Your task to perform on an android device: What is the speed of a rocket? Image 0: 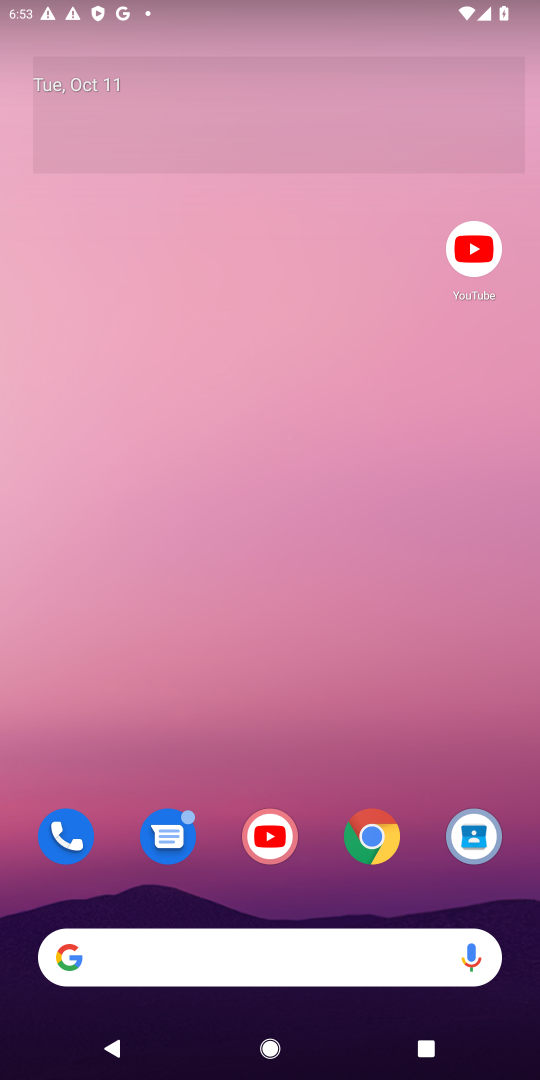
Step 0: click (371, 840)
Your task to perform on an android device: What is the speed of a rocket? Image 1: 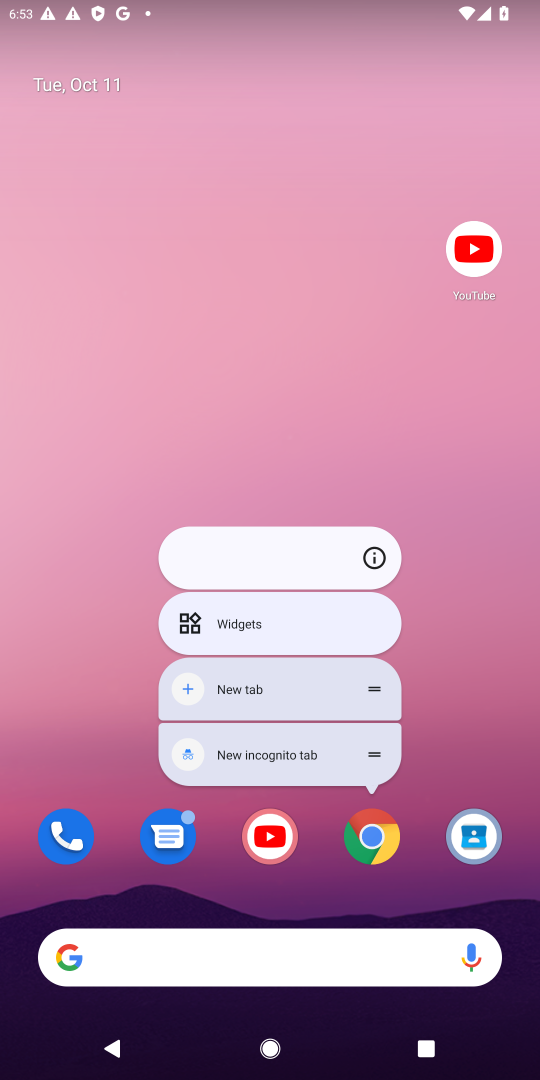
Step 1: click (370, 842)
Your task to perform on an android device: What is the speed of a rocket? Image 2: 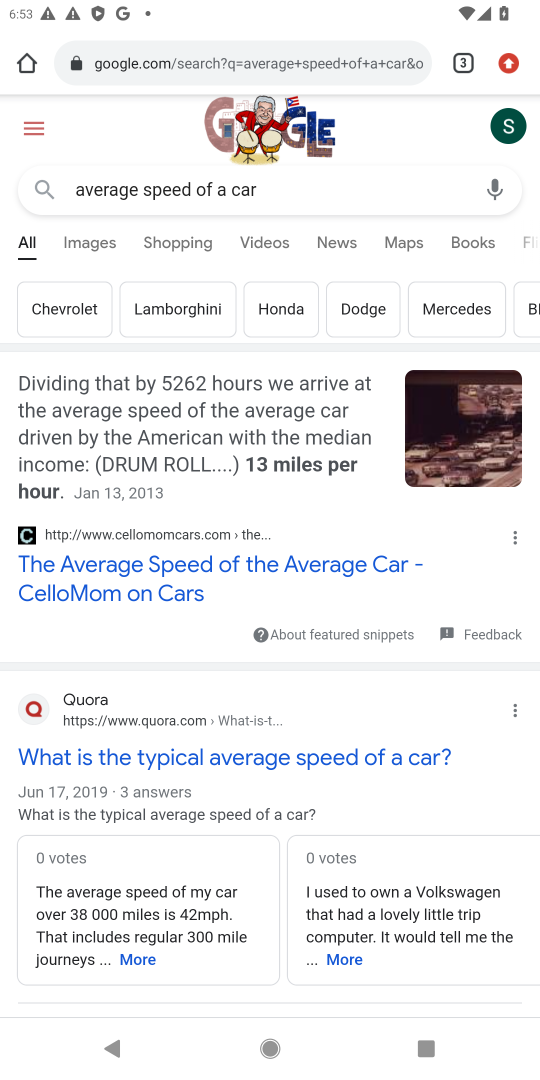
Step 2: click (363, 61)
Your task to perform on an android device: What is the speed of a rocket? Image 3: 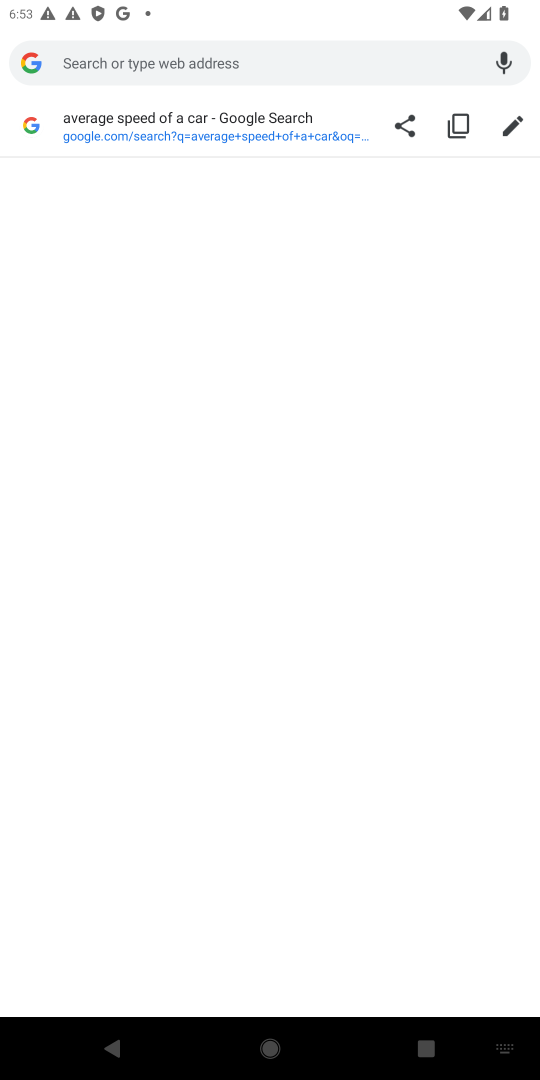
Step 3: type "speed of a rocket"
Your task to perform on an android device: What is the speed of a rocket? Image 4: 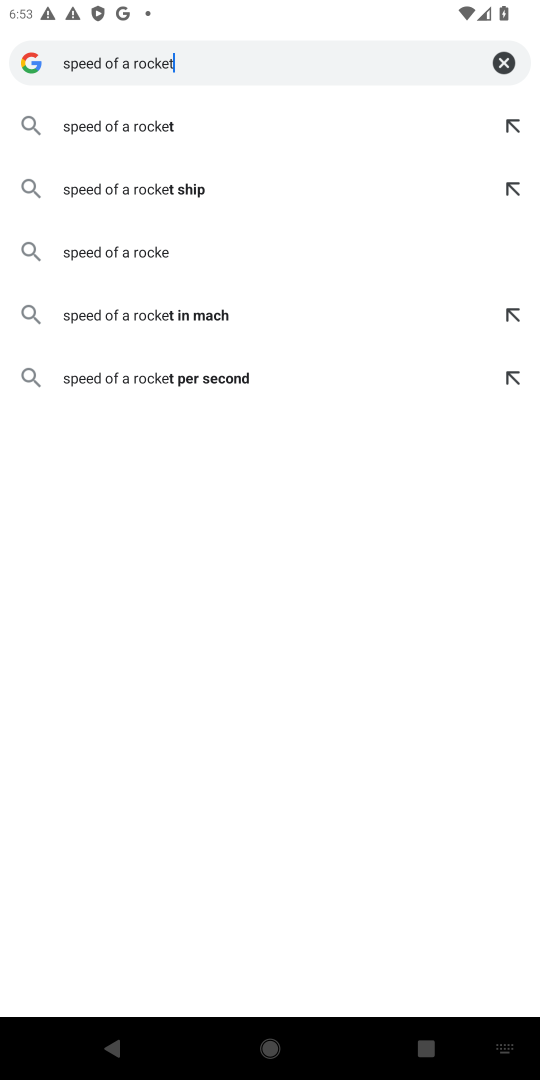
Step 4: press enter
Your task to perform on an android device: What is the speed of a rocket? Image 5: 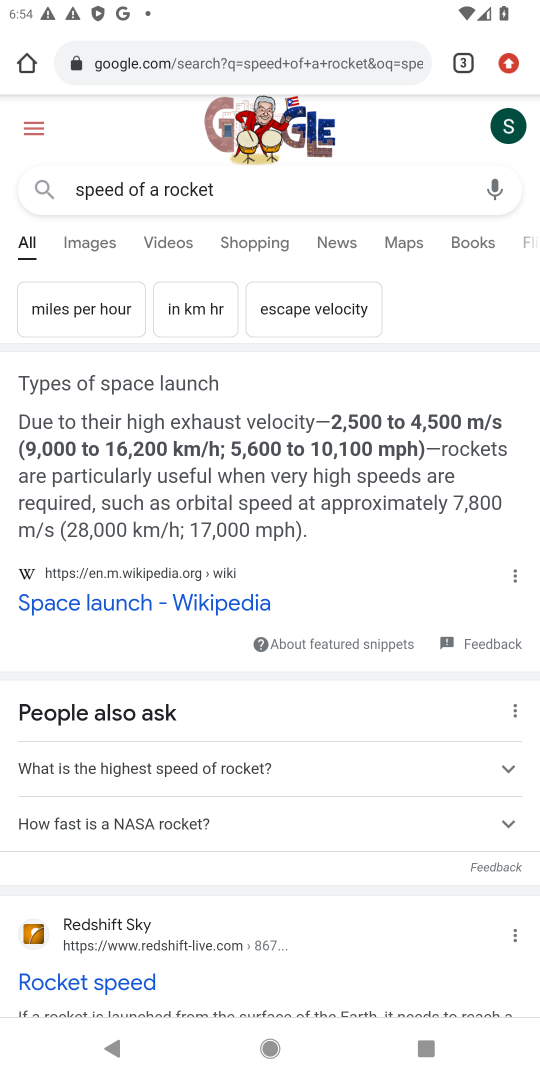
Step 5: drag from (257, 845) to (370, 430)
Your task to perform on an android device: What is the speed of a rocket? Image 6: 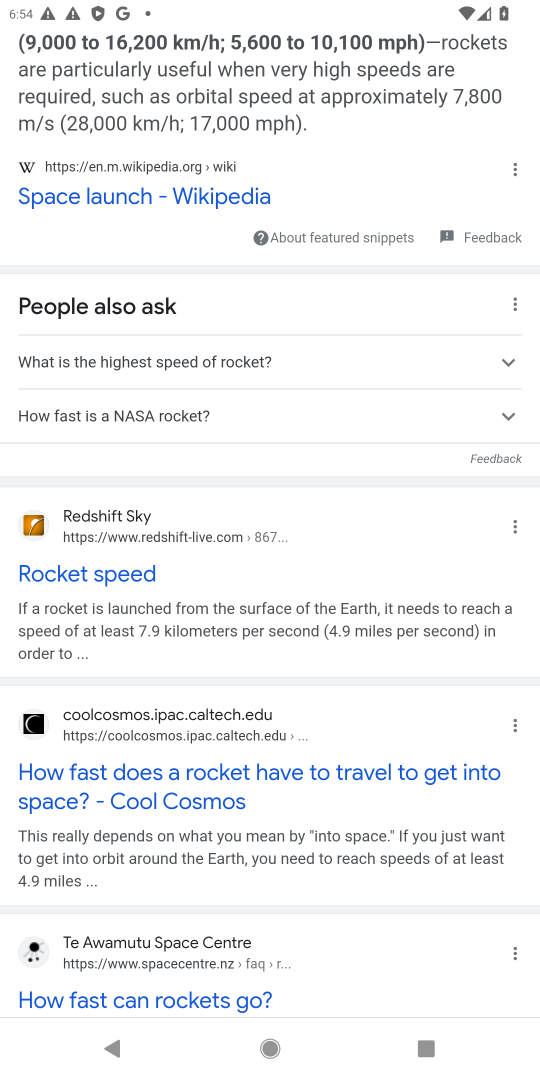
Step 6: click (130, 574)
Your task to perform on an android device: What is the speed of a rocket? Image 7: 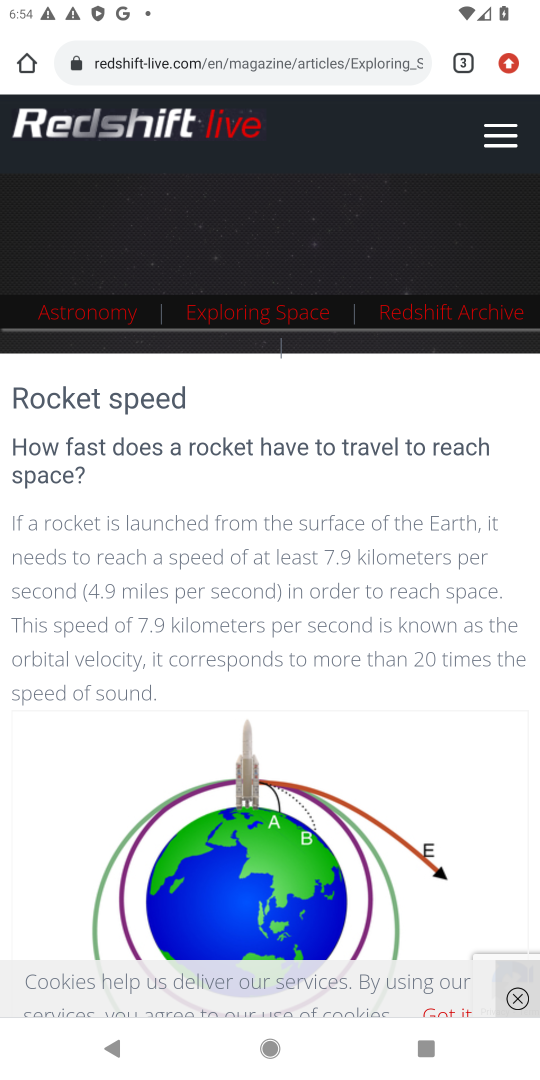
Step 7: task complete